Your task to perform on an android device: Open battery settings Image 0: 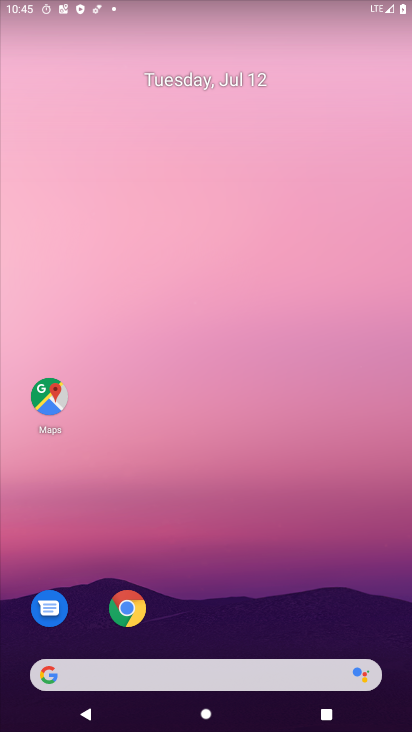
Step 0: drag from (333, 621) to (357, 2)
Your task to perform on an android device: Open battery settings Image 1: 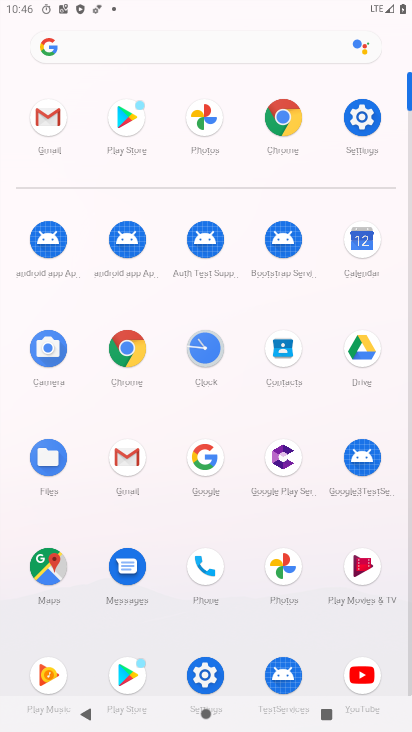
Step 1: click (364, 114)
Your task to perform on an android device: Open battery settings Image 2: 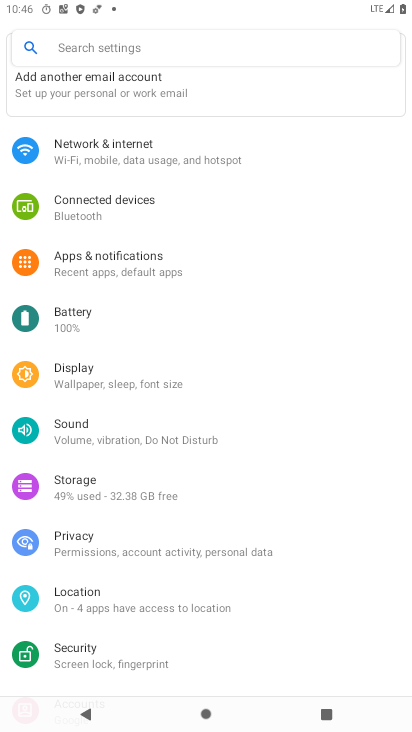
Step 2: click (106, 321)
Your task to perform on an android device: Open battery settings Image 3: 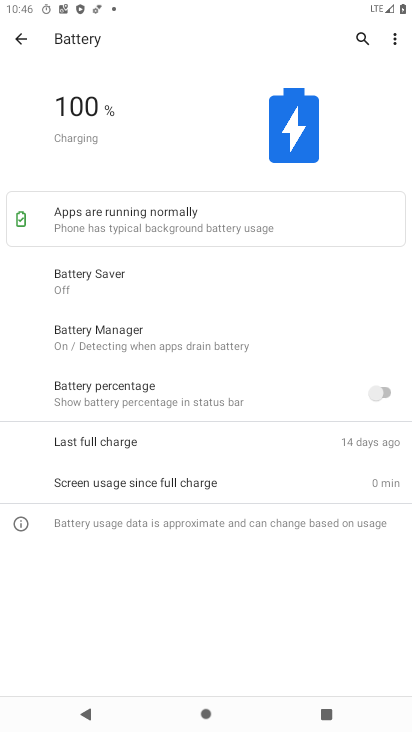
Step 3: task complete